Your task to perform on an android device: toggle wifi Image 0: 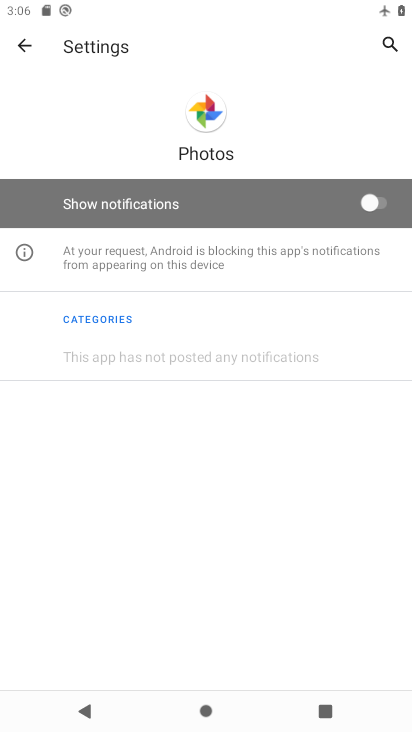
Step 0: press home button
Your task to perform on an android device: toggle wifi Image 1: 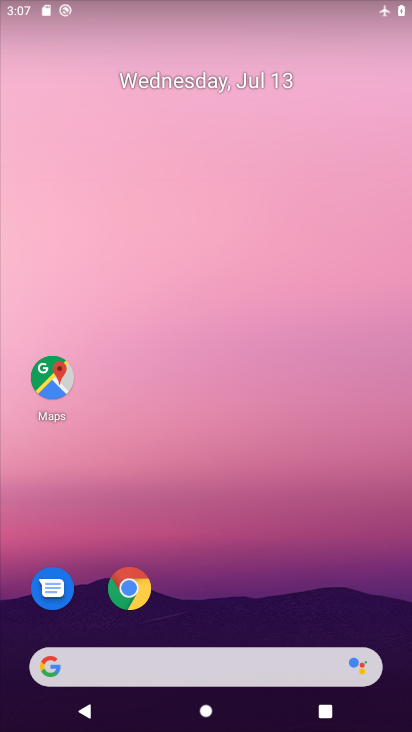
Step 1: drag from (208, 650) to (203, 39)
Your task to perform on an android device: toggle wifi Image 2: 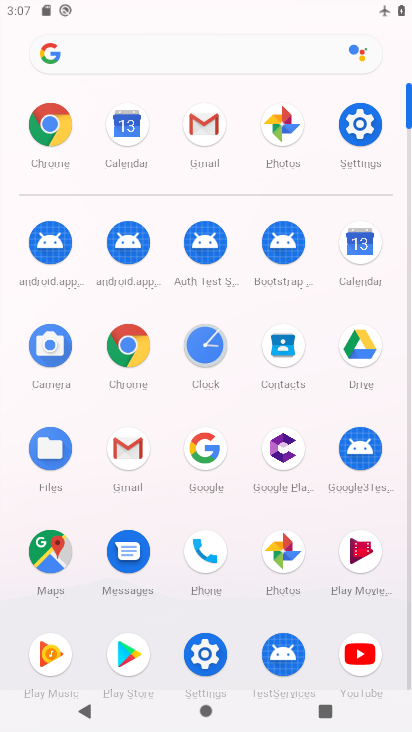
Step 2: click (353, 128)
Your task to perform on an android device: toggle wifi Image 3: 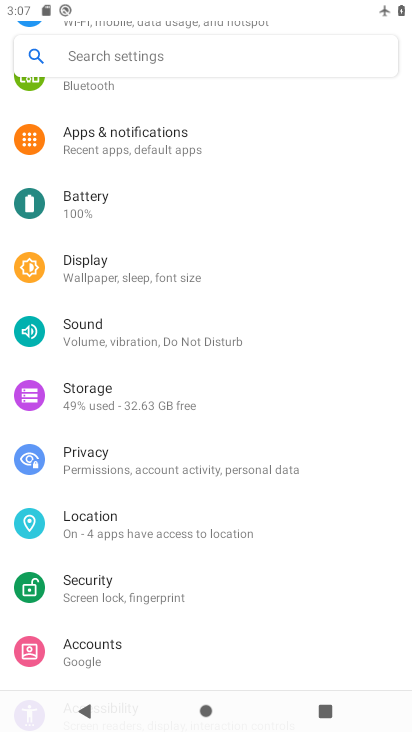
Step 3: drag from (212, 178) to (132, 518)
Your task to perform on an android device: toggle wifi Image 4: 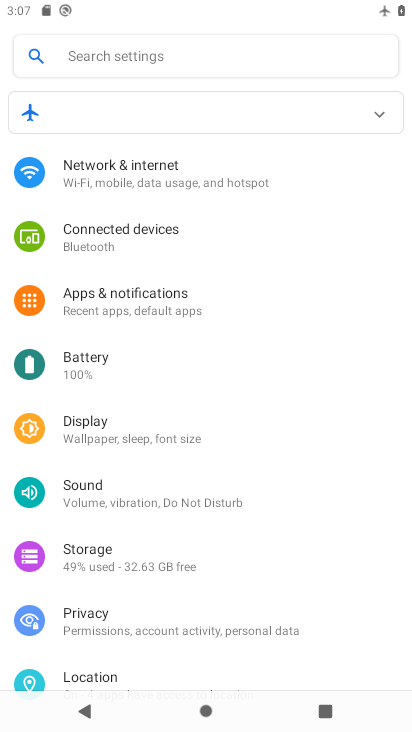
Step 4: click (114, 183)
Your task to perform on an android device: toggle wifi Image 5: 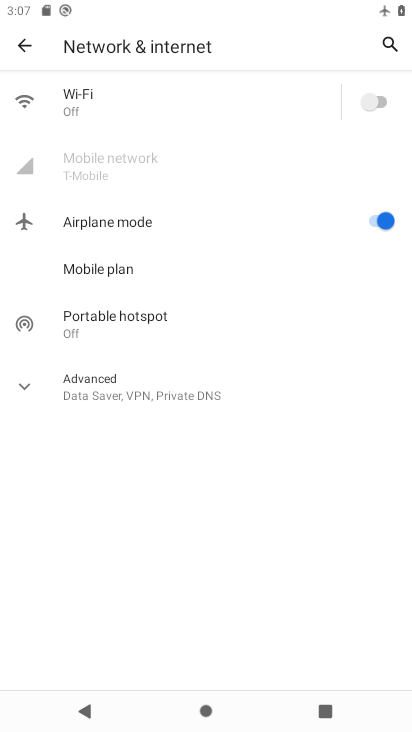
Step 5: click (382, 99)
Your task to perform on an android device: toggle wifi Image 6: 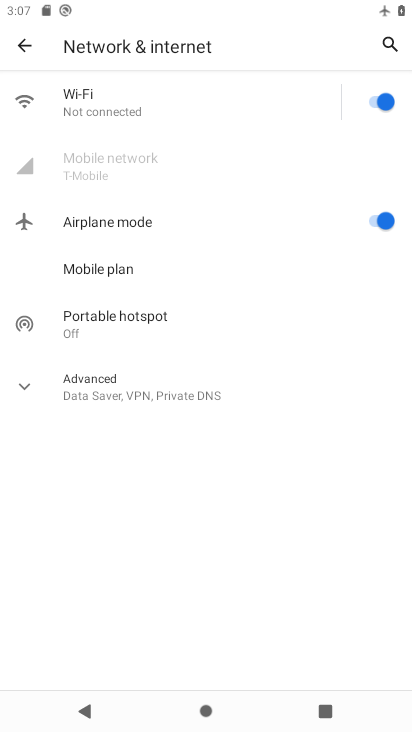
Step 6: task complete